Your task to perform on an android device: turn pop-ups off in chrome Image 0: 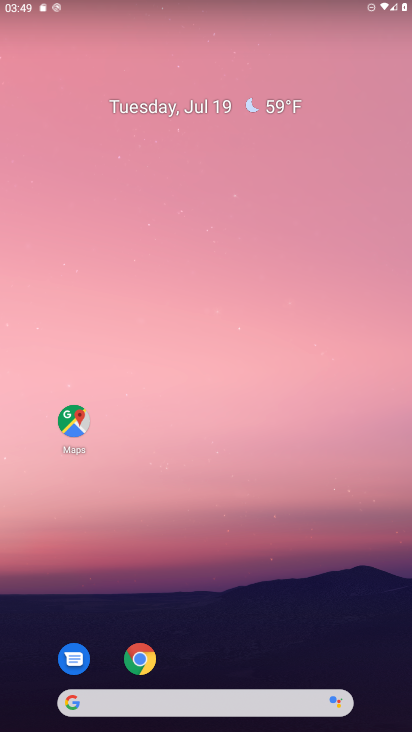
Step 0: click (141, 661)
Your task to perform on an android device: turn pop-ups off in chrome Image 1: 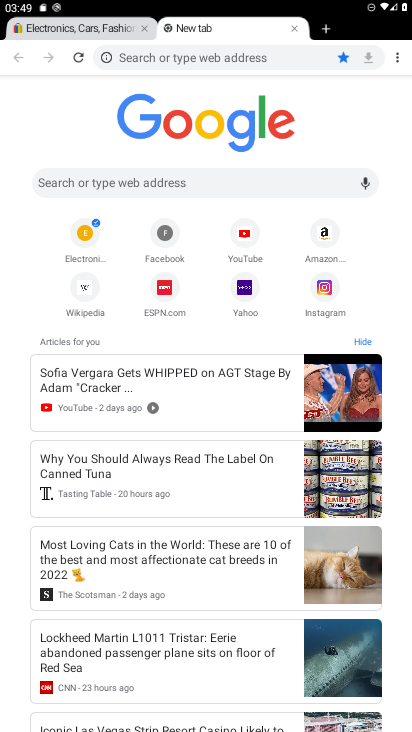
Step 1: click (398, 56)
Your task to perform on an android device: turn pop-ups off in chrome Image 2: 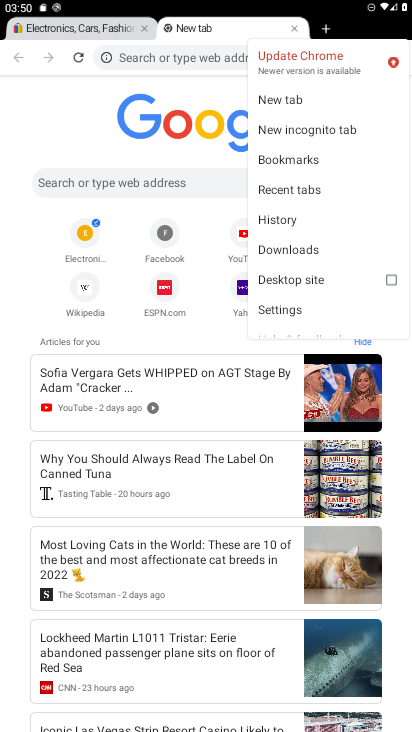
Step 2: click (290, 310)
Your task to perform on an android device: turn pop-ups off in chrome Image 3: 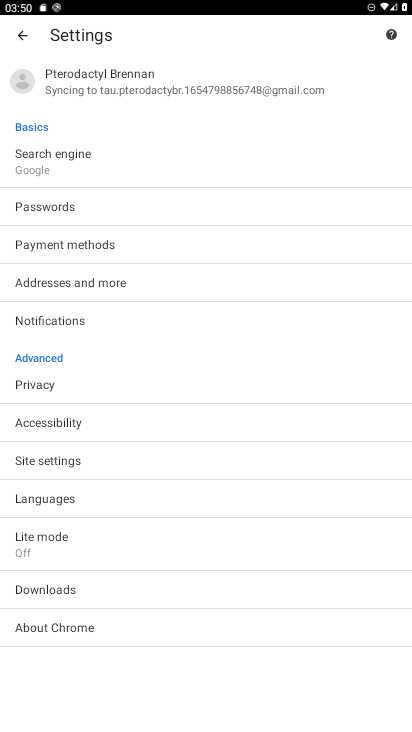
Step 3: click (52, 458)
Your task to perform on an android device: turn pop-ups off in chrome Image 4: 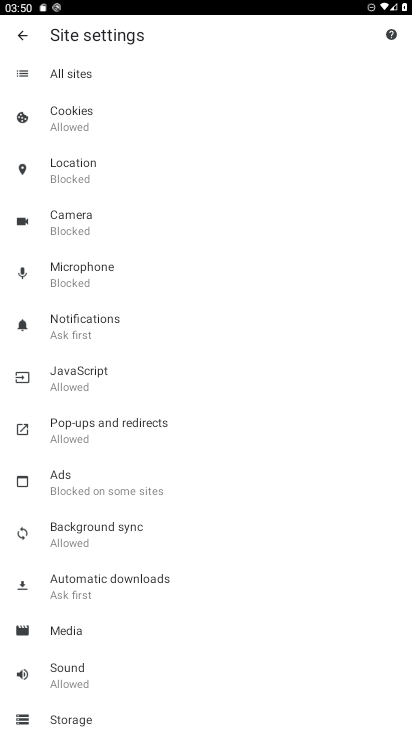
Step 4: click (104, 430)
Your task to perform on an android device: turn pop-ups off in chrome Image 5: 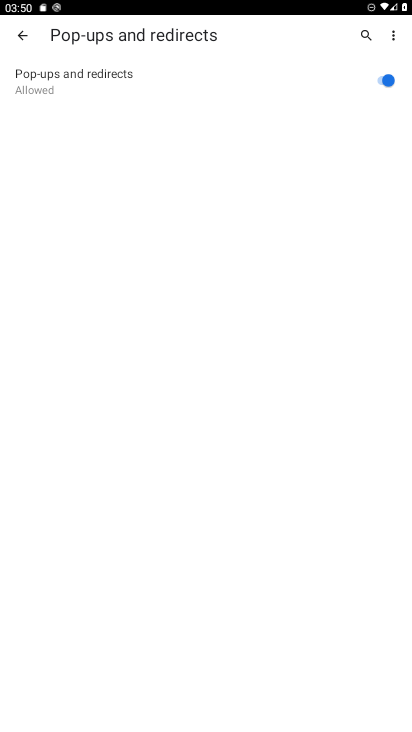
Step 5: click (384, 84)
Your task to perform on an android device: turn pop-ups off in chrome Image 6: 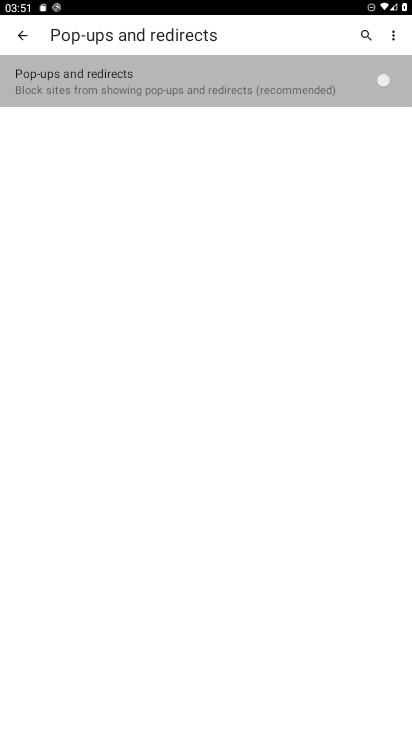
Step 6: click (389, 80)
Your task to perform on an android device: turn pop-ups off in chrome Image 7: 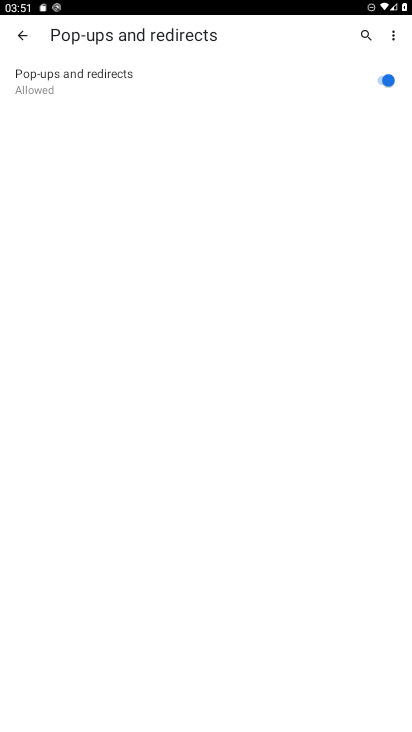
Step 7: click (387, 78)
Your task to perform on an android device: turn pop-ups off in chrome Image 8: 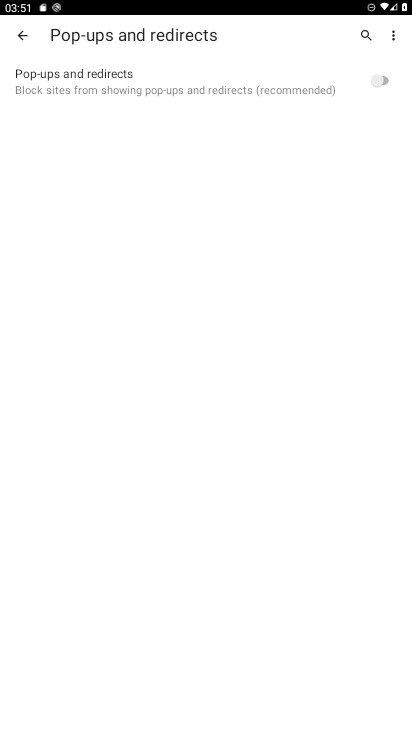
Step 8: task complete